Your task to perform on an android device: Go to ESPN.com Image 0: 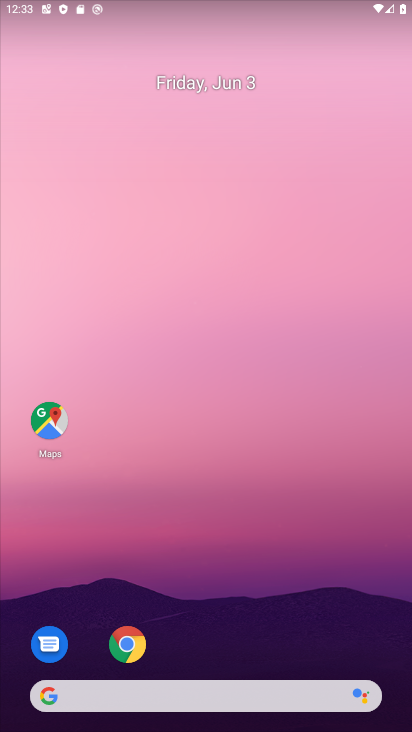
Step 0: click (128, 644)
Your task to perform on an android device: Go to ESPN.com Image 1: 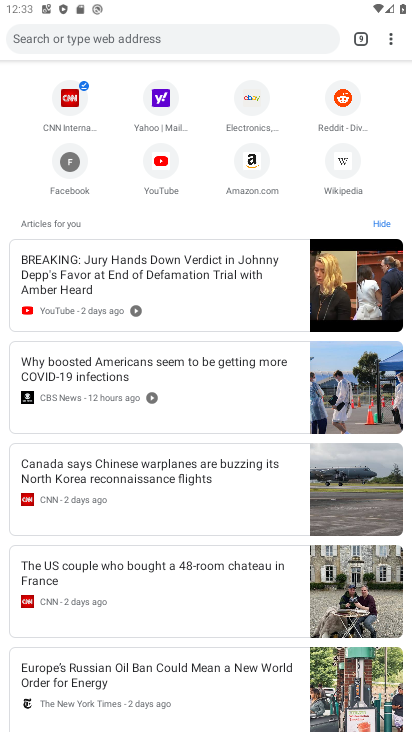
Step 1: click (161, 35)
Your task to perform on an android device: Go to ESPN.com Image 2: 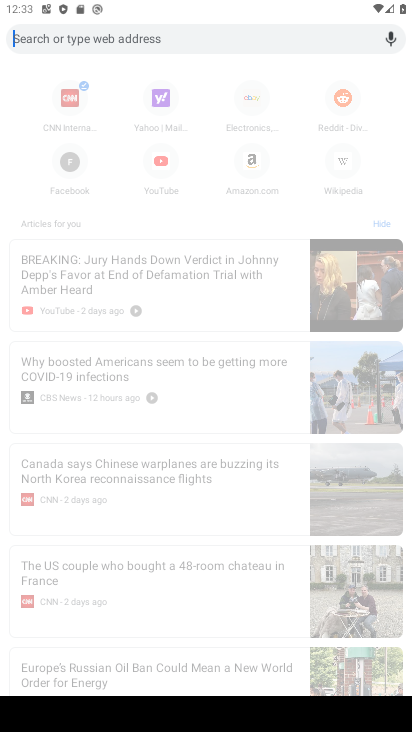
Step 2: type "ESPN.com"
Your task to perform on an android device: Go to ESPN.com Image 3: 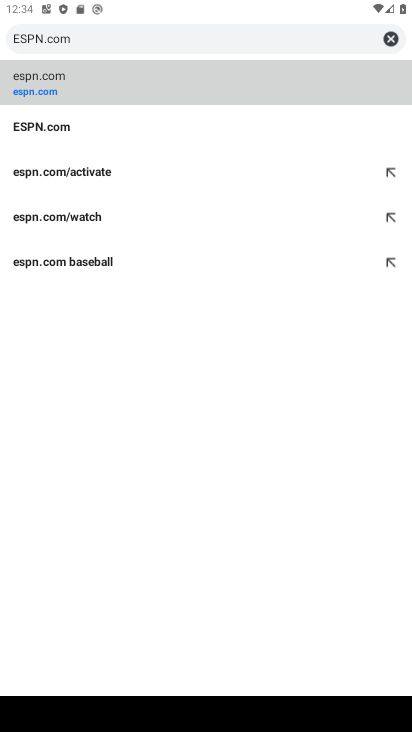
Step 3: click (42, 86)
Your task to perform on an android device: Go to ESPN.com Image 4: 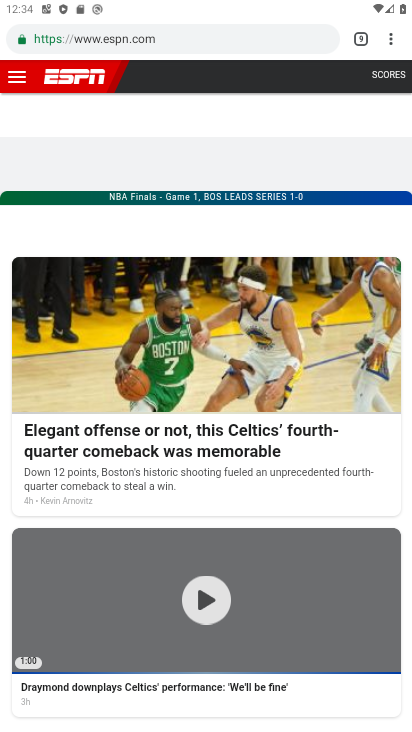
Step 4: task complete